Your task to perform on an android device: see creations saved in the google photos Image 0: 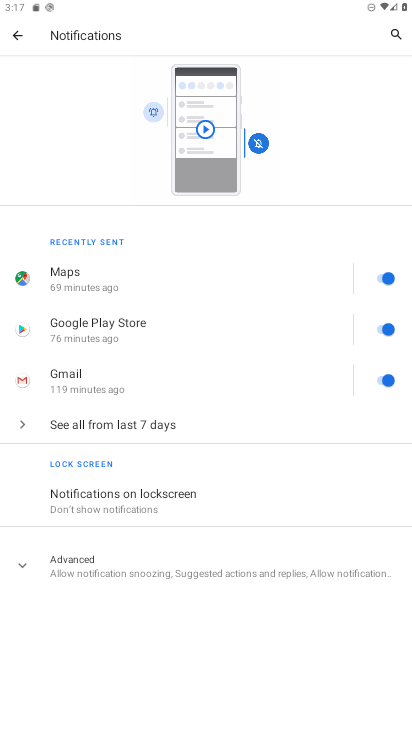
Step 0: press home button
Your task to perform on an android device: see creations saved in the google photos Image 1: 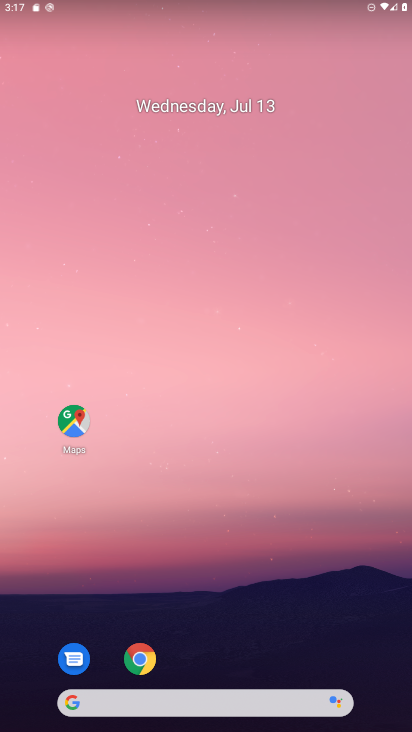
Step 1: drag from (384, 676) to (294, 47)
Your task to perform on an android device: see creations saved in the google photos Image 2: 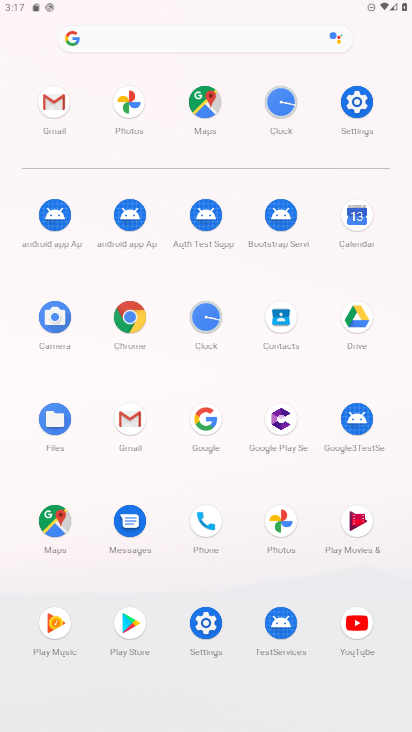
Step 2: click (281, 521)
Your task to perform on an android device: see creations saved in the google photos Image 3: 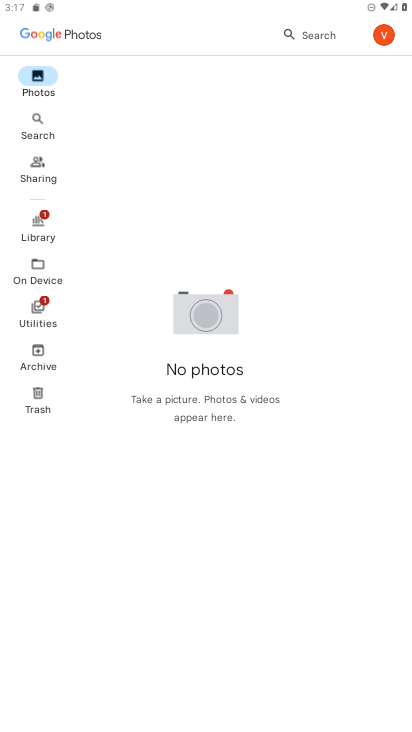
Step 3: task complete